Your task to perform on an android device: Go to Reddit.com Image 0: 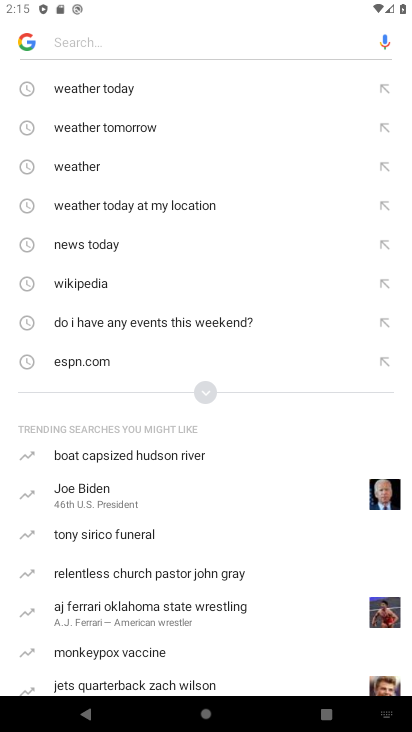
Step 0: press home button
Your task to perform on an android device: Go to Reddit.com Image 1: 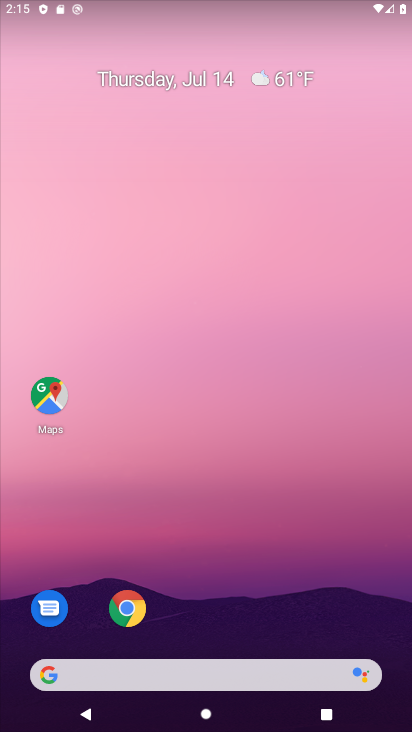
Step 1: click (240, 676)
Your task to perform on an android device: Go to Reddit.com Image 2: 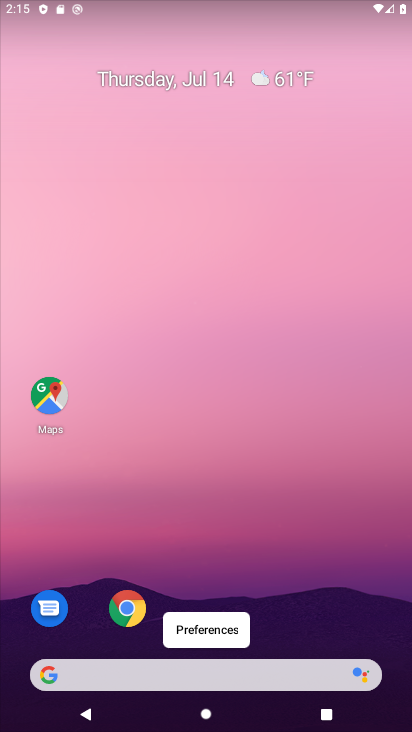
Step 2: click (221, 680)
Your task to perform on an android device: Go to Reddit.com Image 3: 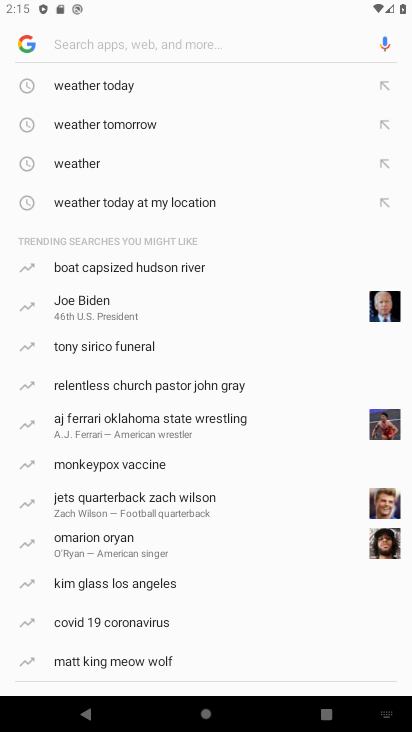
Step 3: type "Reddit.com"
Your task to perform on an android device: Go to Reddit.com Image 4: 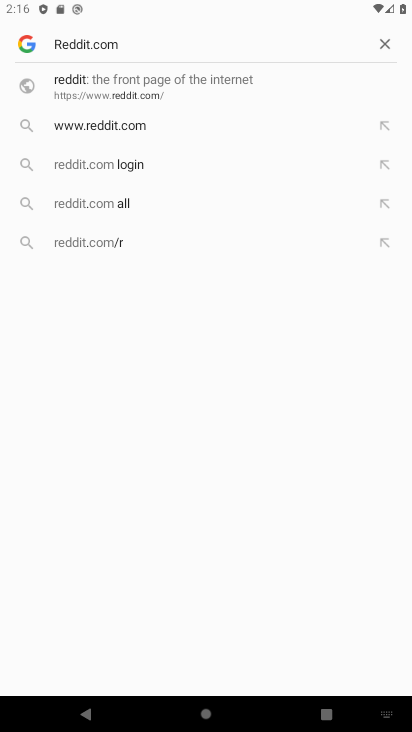
Step 4: click (157, 79)
Your task to perform on an android device: Go to Reddit.com Image 5: 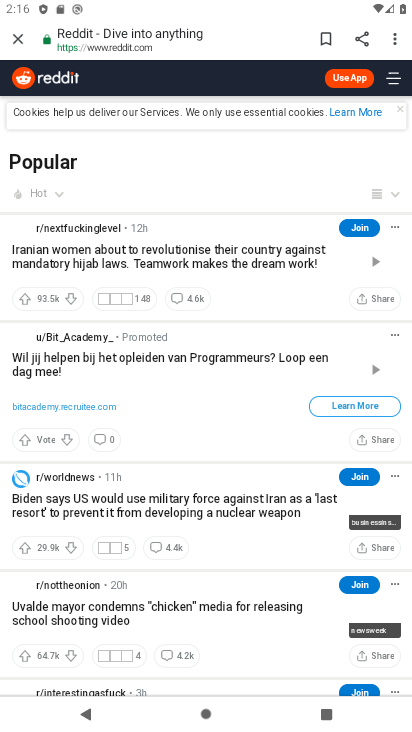
Step 5: task complete